Your task to perform on an android device: turn off javascript in the chrome app Image 0: 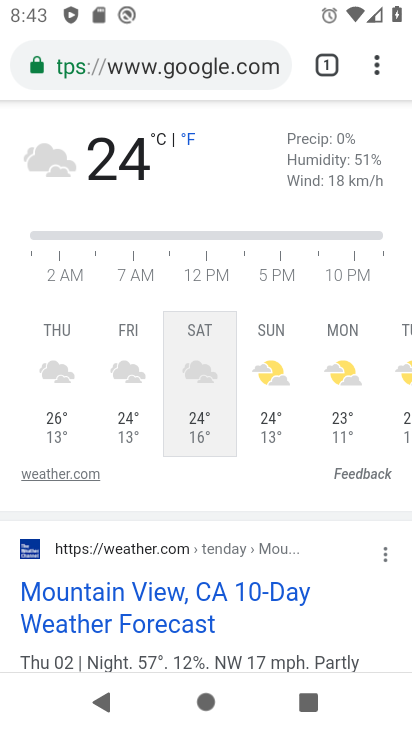
Step 0: click (369, 78)
Your task to perform on an android device: turn off javascript in the chrome app Image 1: 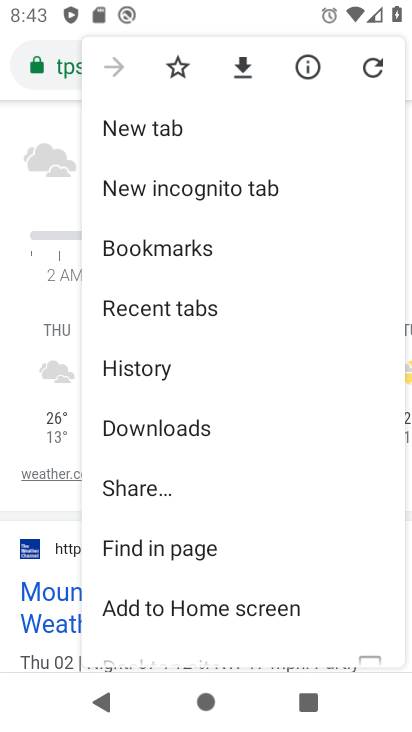
Step 1: drag from (258, 627) to (214, 246)
Your task to perform on an android device: turn off javascript in the chrome app Image 2: 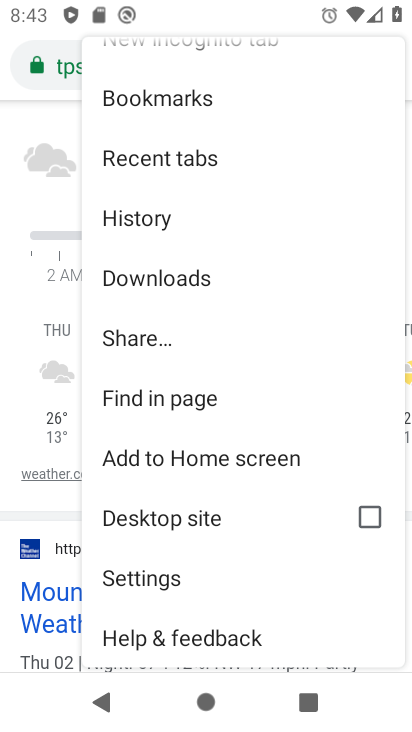
Step 2: click (230, 569)
Your task to perform on an android device: turn off javascript in the chrome app Image 3: 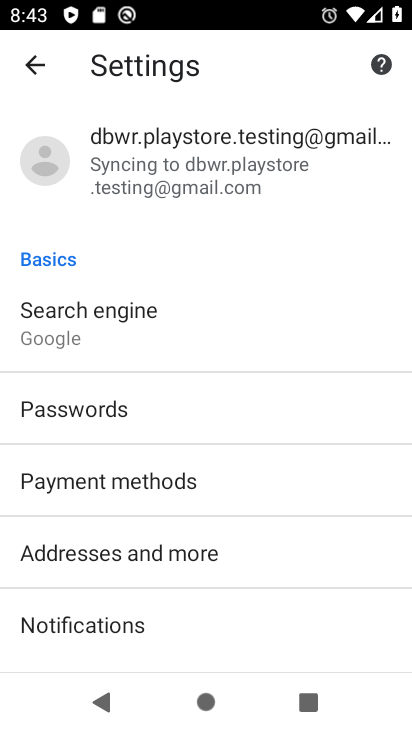
Step 3: drag from (249, 620) to (192, 277)
Your task to perform on an android device: turn off javascript in the chrome app Image 4: 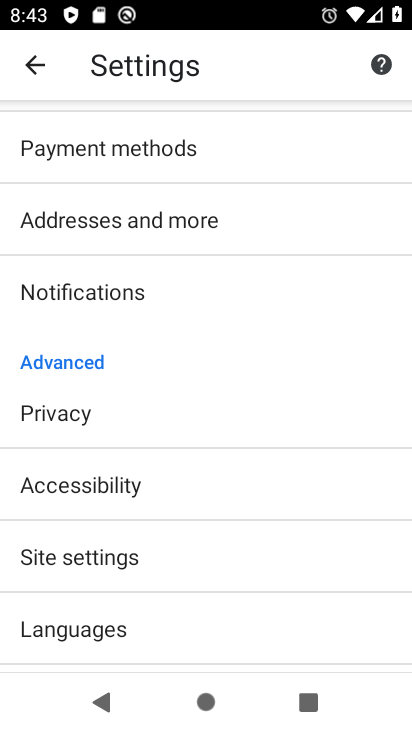
Step 4: drag from (201, 595) to (160, 309)
Your task to perform on an android device: turn off javascript in the chrome app Image 5: 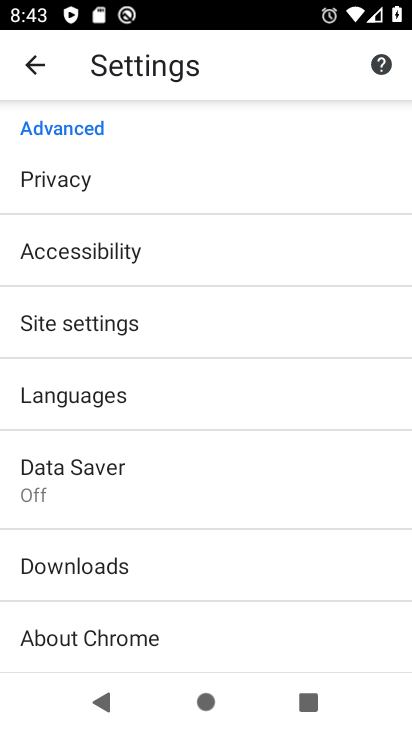
Step 5: click (161, 333)
Your task to perform on an android device: turn off javascript in the chrome app Image 6: 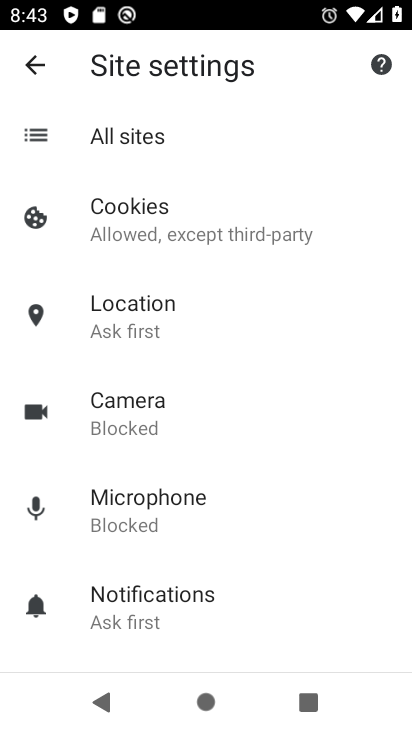
Step 6: drag from (224, 568) to (198, 255)
Your task to perform on an android device: turn off javascript in the chrome app Image 7: 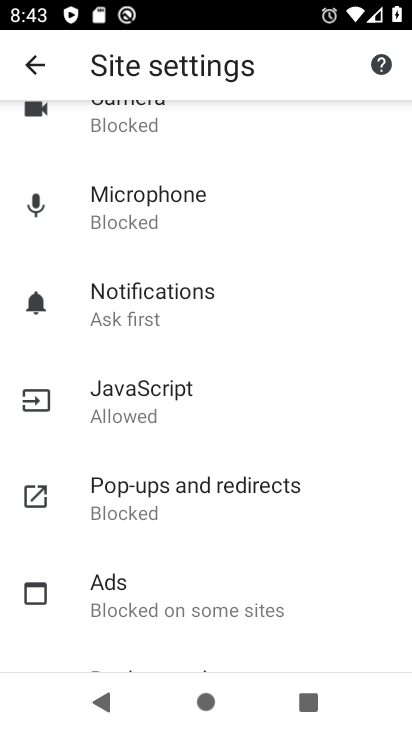
Step 7: click (199, 382)
Your task to perform on an android device: turn off javascript in the chrome app Image 8: 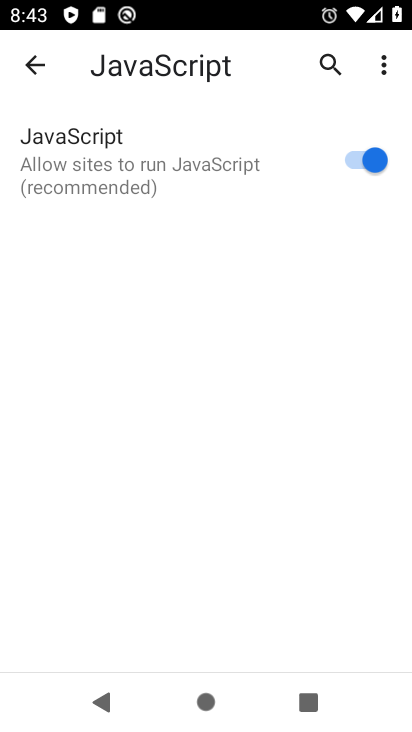
Step 8: click (362, 158)
Your task to perform on an android device: turn off javascript in the chrome app Image 9: 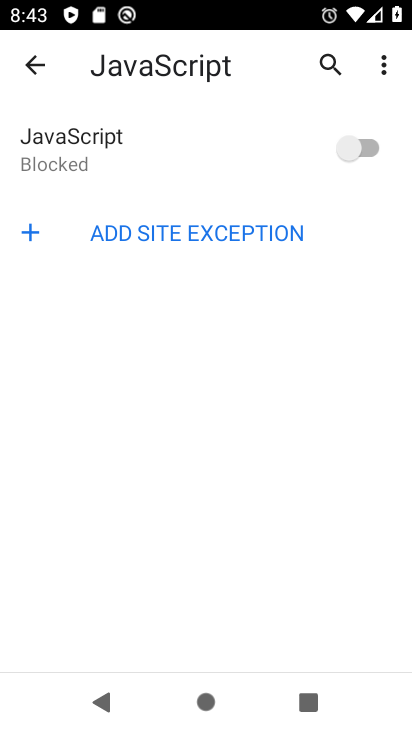
Step 9: task complete